Your task to perform on an android device: What's the weather going to be tomorrow? Image 0: 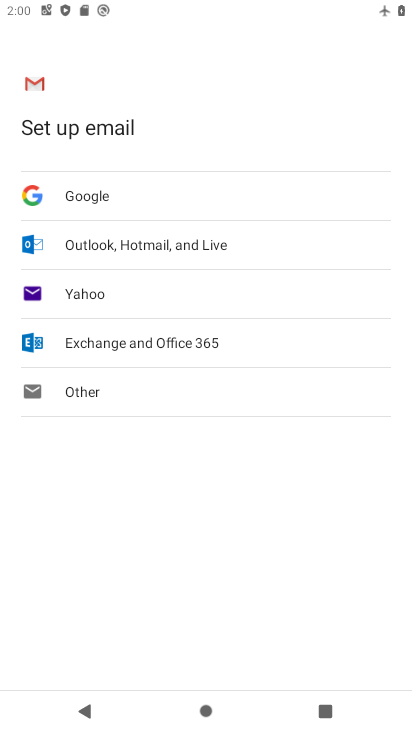
Step 0: press home button
Your task to perform on an android device: What's the weather going to be tomorrow? Image 1: 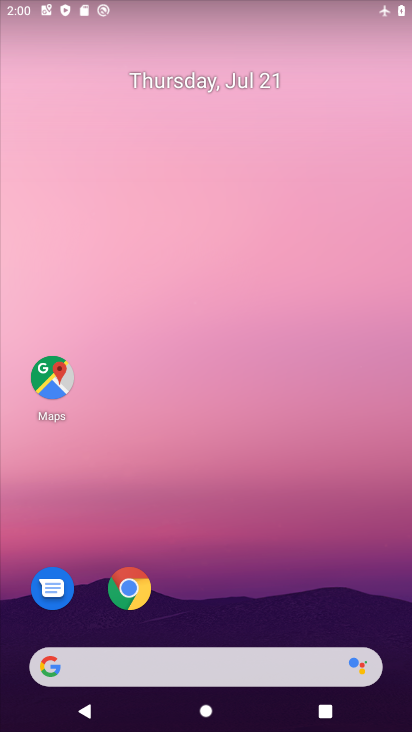
Step 1: drag from (236, 651) to (164, 12)
Your task to perform on an android device: What's the weather going to be tomorrow? Image 2: 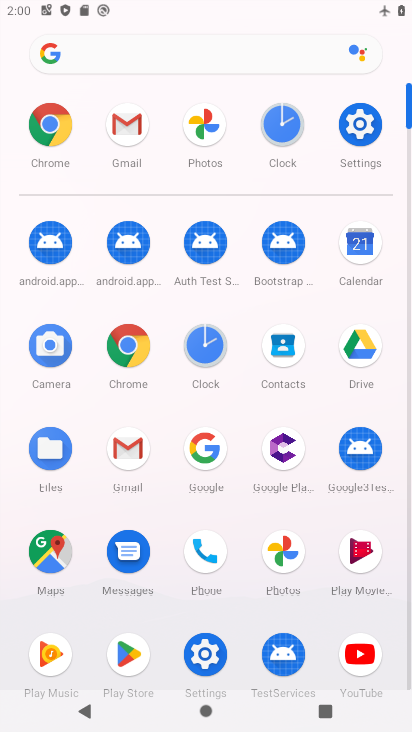
Step 2: click (350, 260)
Your task to perform on an android device: What's the weather going to be tomorrow? Image 3: 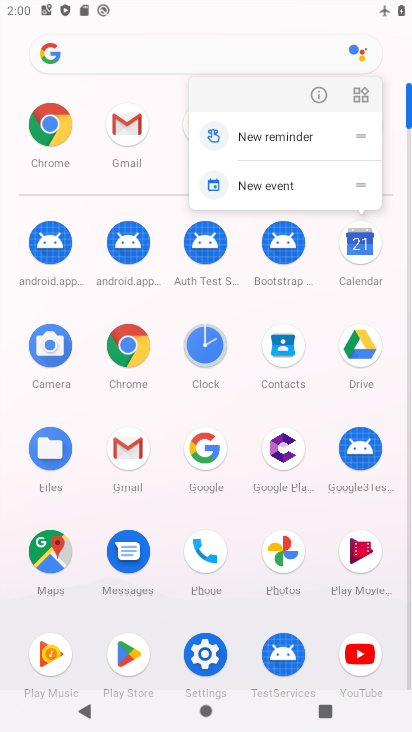
Step 3: click (198, 444)
Your task to perform on an android device: What's the weather going to be tomorrow? Image 4: 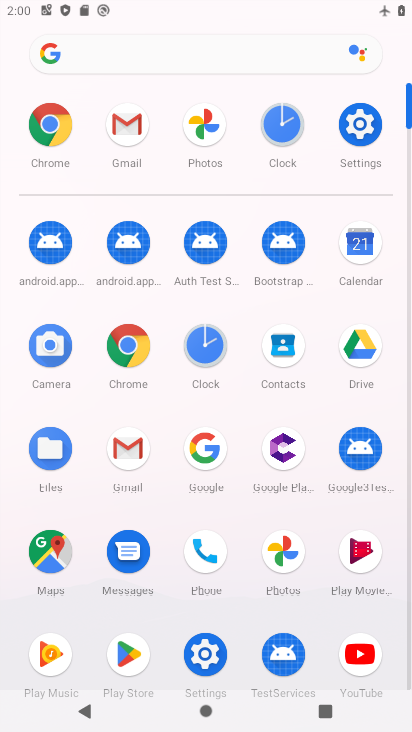
Step 4: click (213, 445)
Your task to perform on an android device: What's the weather going to be tomorrow? Image 5: 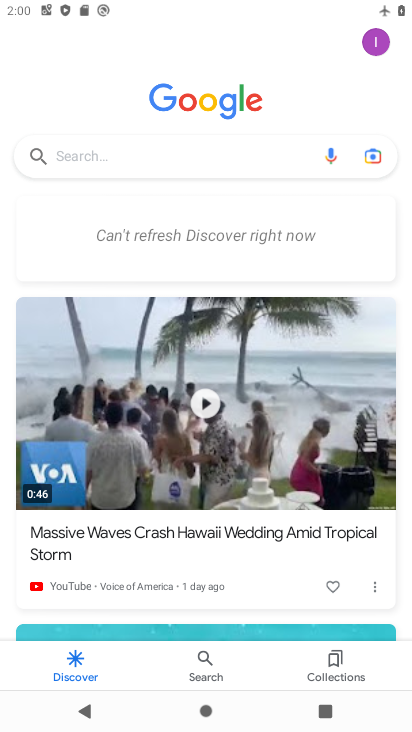
Step 5: click (195, 153)
Your task to perform on an android device: What's the weather going to be tomorrow? Image 6: 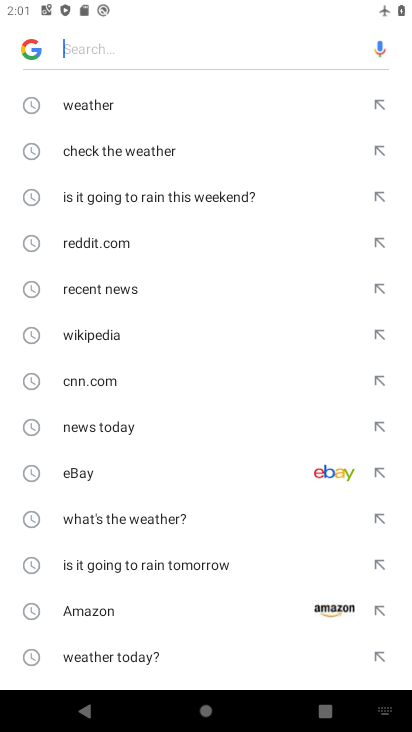
Step 6: click (85, 88)
Your task to perform on an android device: What's the weather going to be tomorrow? Image 7: 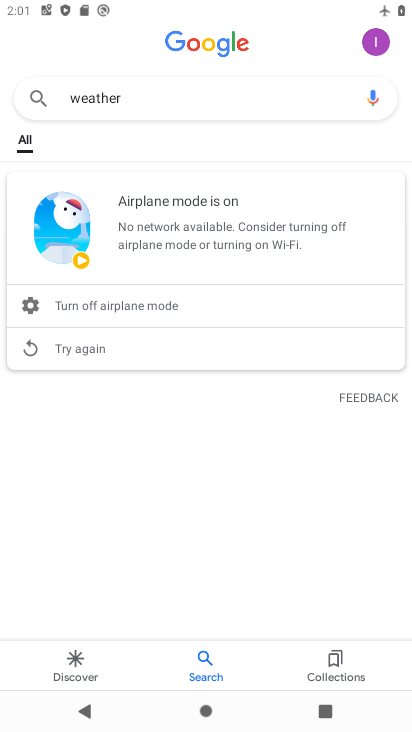
Step 7: task complete